Your task to perform on an android device: install app "YouTube Kids" Image 0: 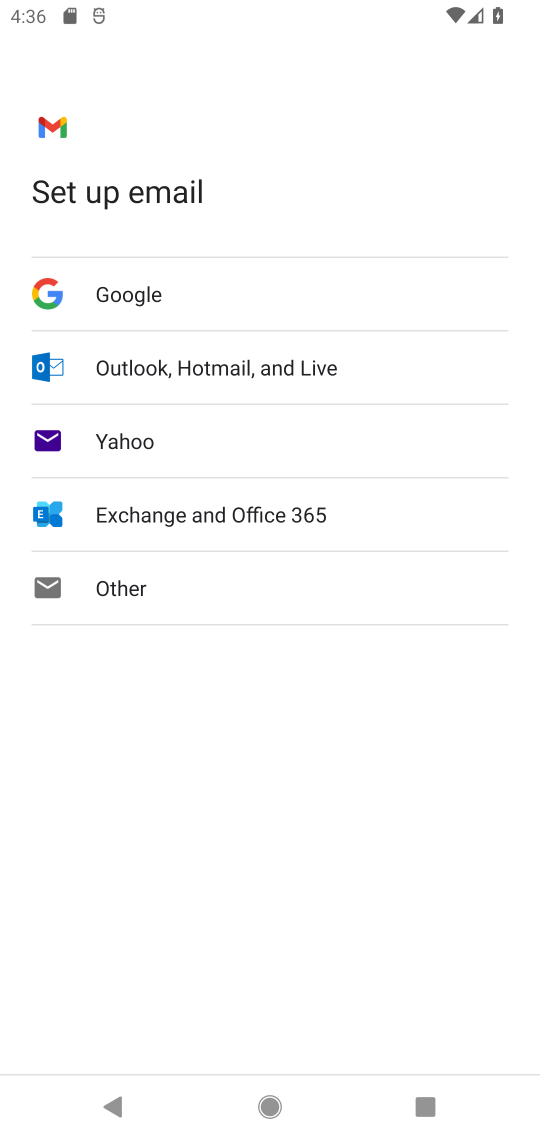
Step 0: press home button
Your task to perform on an android device: install app "YouTube Kids" Image 1: 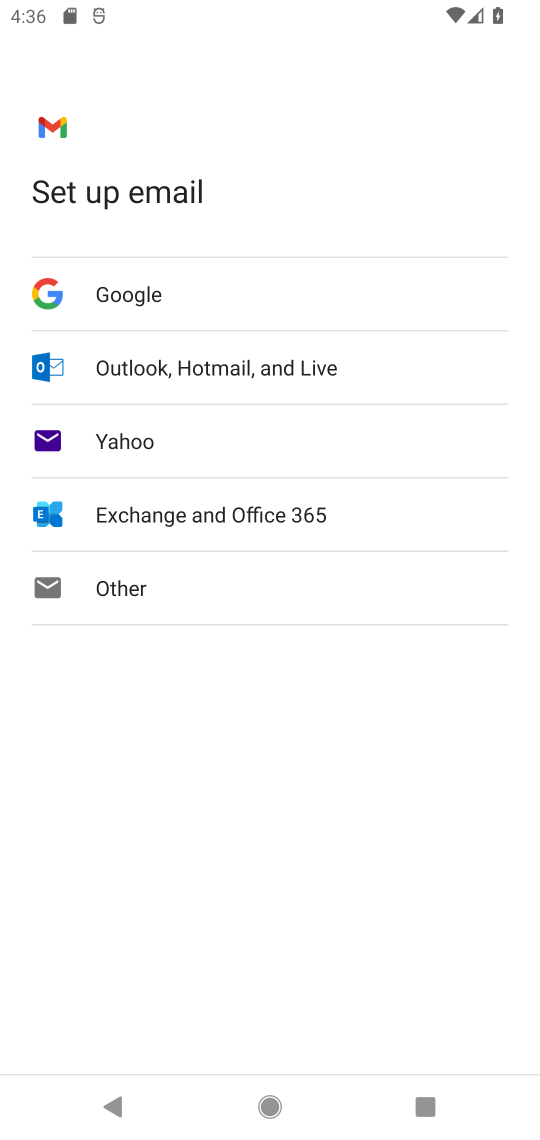
Step 1: press home button
Your task to perform on an android device: install app "YouTube Kids" Image 2: 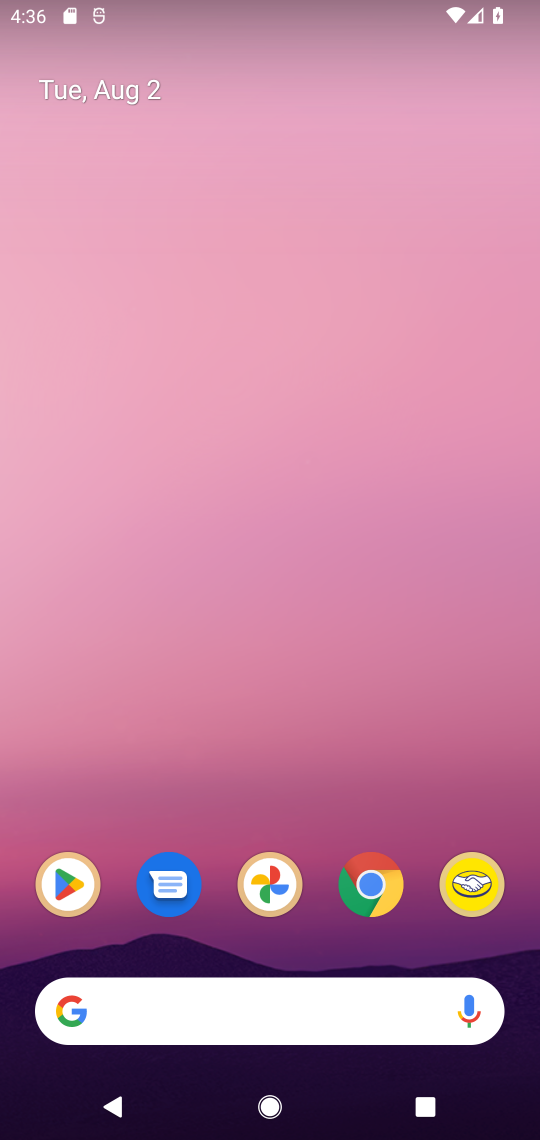
Step 2: click (67, 908)
Your task to perform on an android device: install app "YouTube Kids" Image 3: 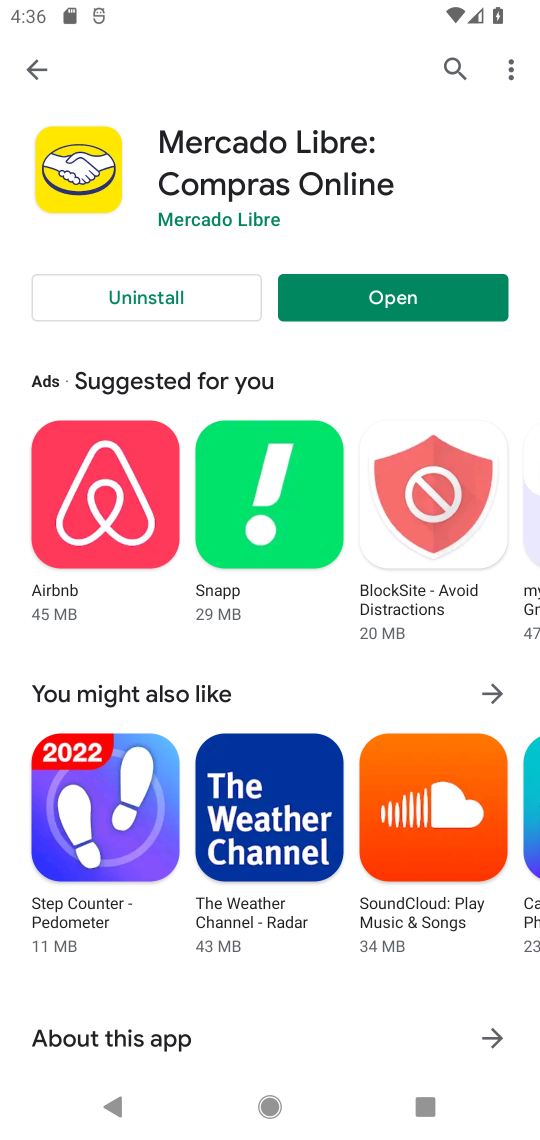
Step 3: click (464, 60)
Your task to perform on an android device: install app "YouTube Kids" Image 4: 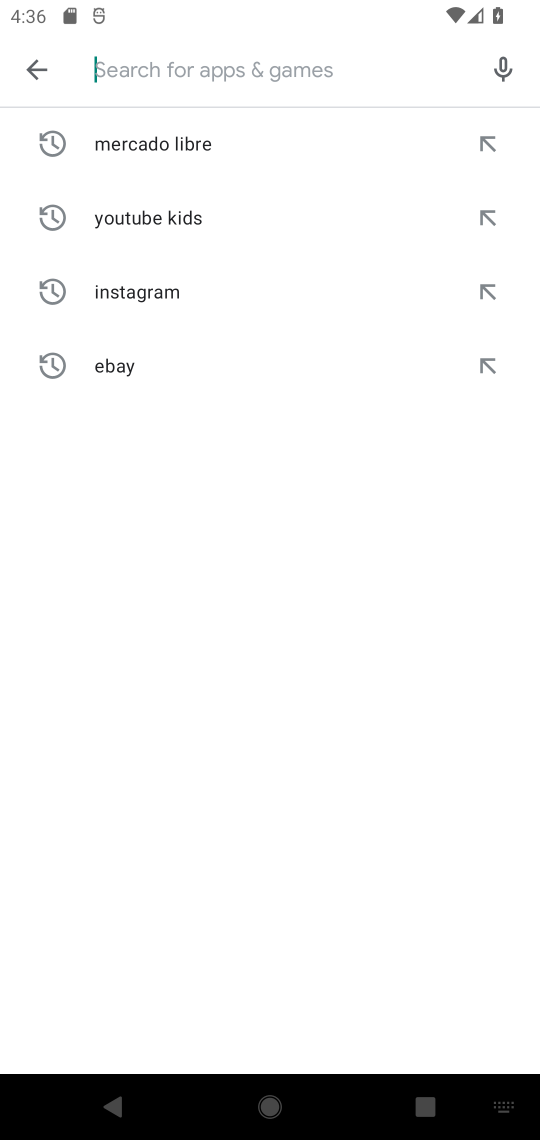
Step 4: type "YouTube Kids""
Your task to perform on an android device: install app "YouTube Kids" Image 5: 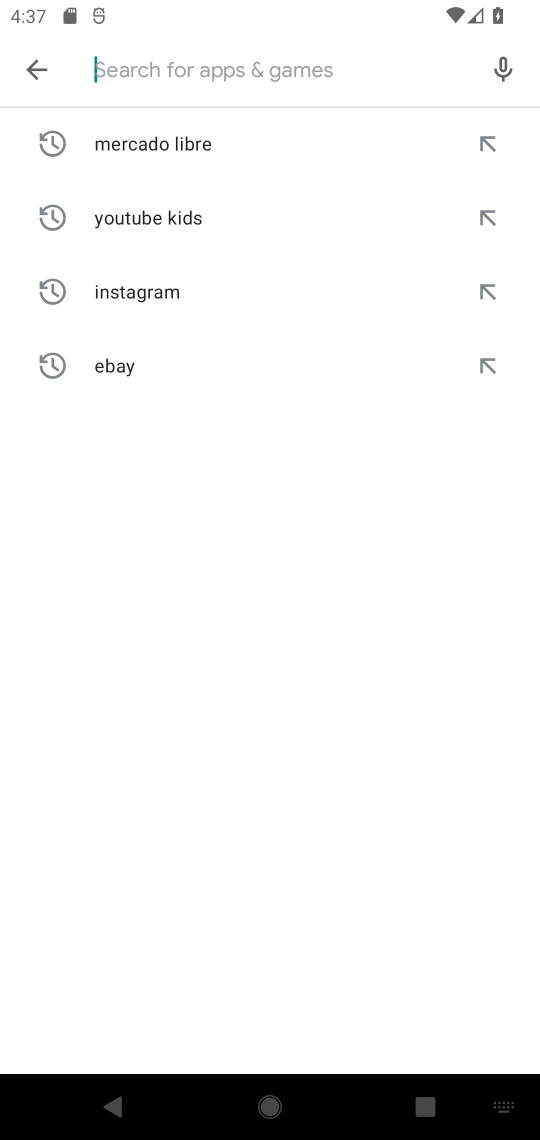
Step 5: type "you tube kids"
Your task to perform on an android device: install app "YouTube Kids" Image 6: 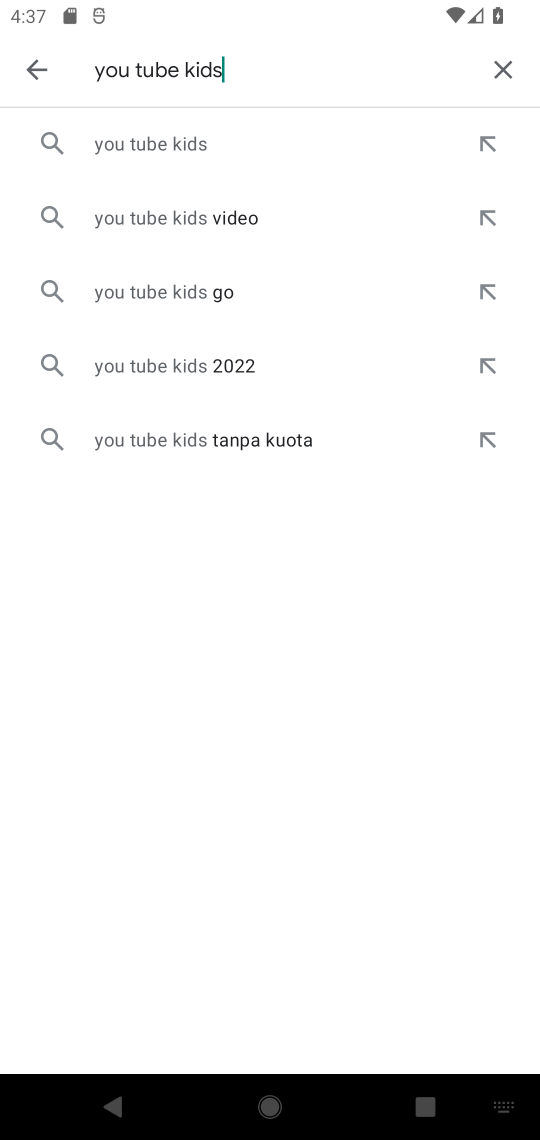
Step 6: click (205, 136)
Your task to perform on an android device: install app "YouTube Kids" Image 7: 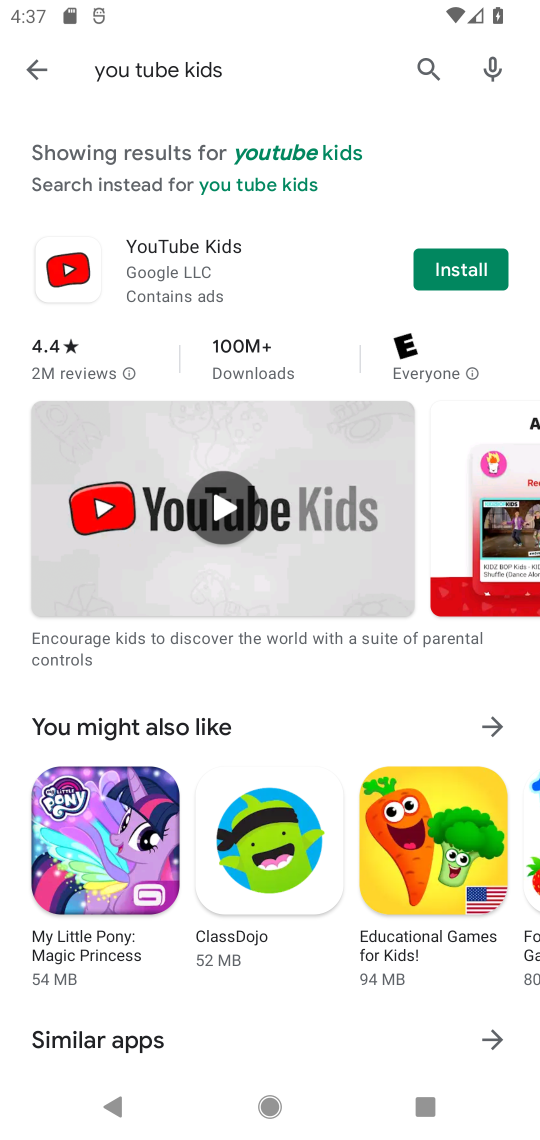
Step 7: click (452, 246)
Your task to perform on an android device: install app "YouTube Kids" Image 8: 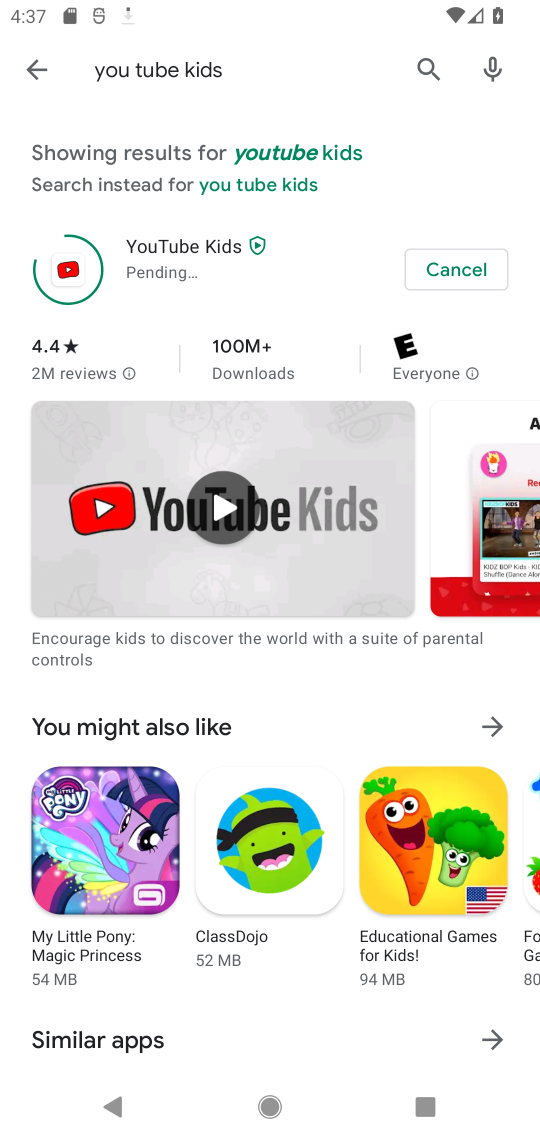
Step 8: click (193, 240)
Your task to perform on an android device: install app "YouTube Kids" Image 9: 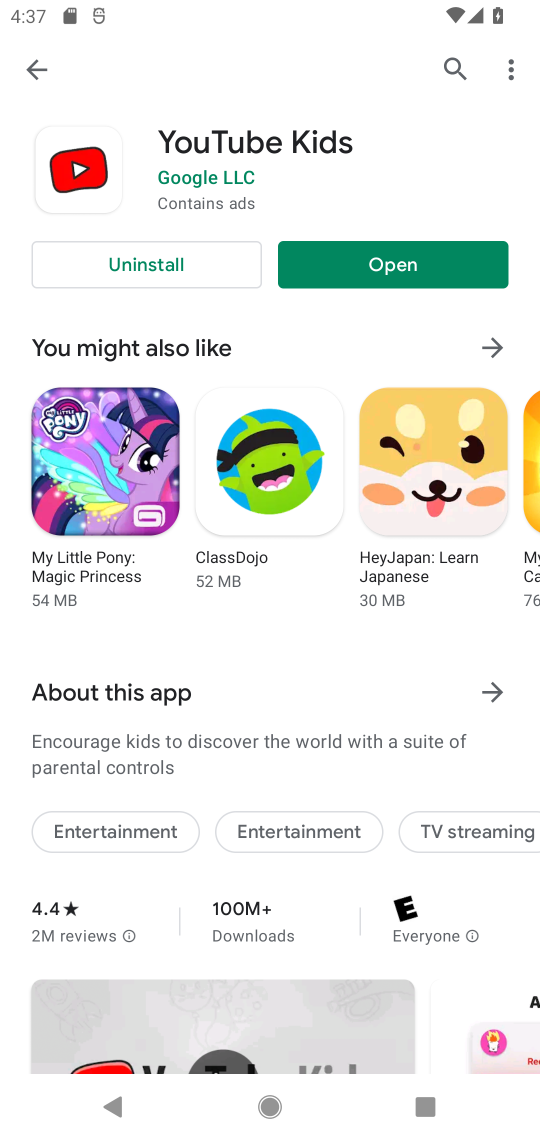
Step 9: task complete